Your task to perform on an android device: turn off priority inbox in the gmail app Image 0: 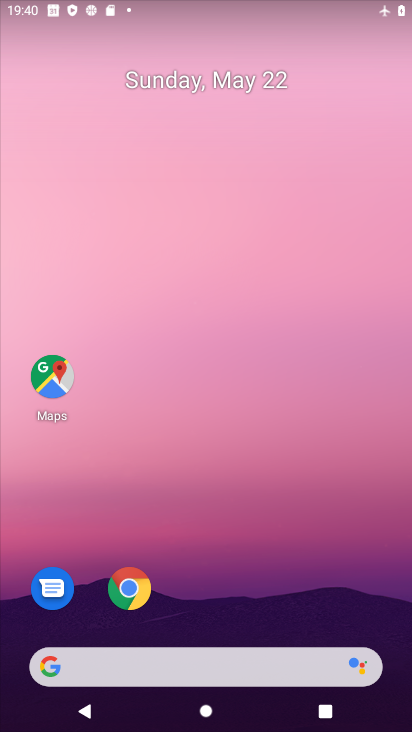
Step 0: click (204, 21)
Your task to perform on an android device: turn off priority inbox in the gmail app Image 1: 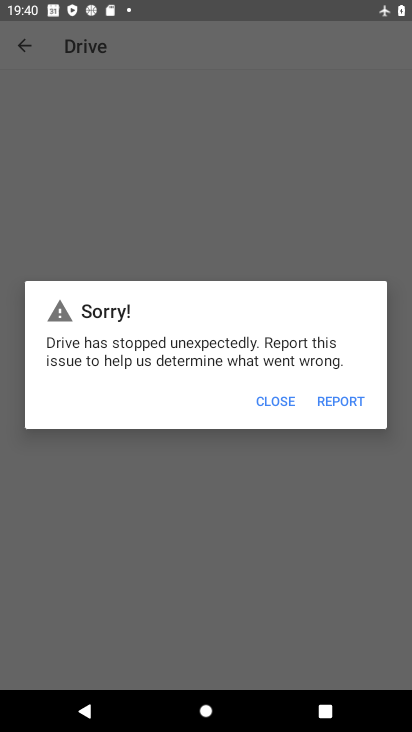
Step 1: press home button
Your task to perform on an android device: turn off priority inbox in the gmail app Image 2: 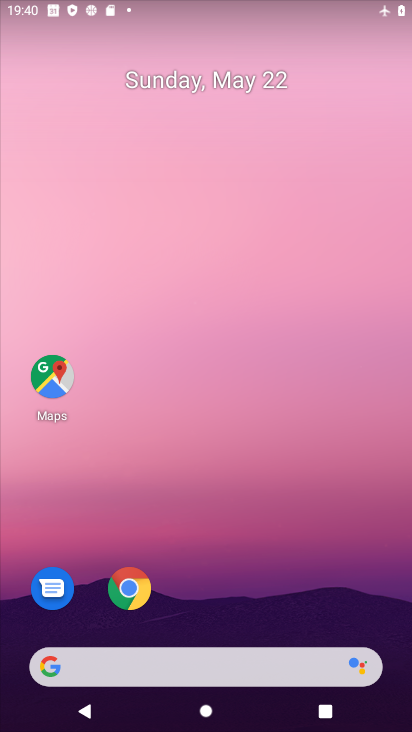
Step 2: drag from (308, 572) to (224, 125)
Your task to perform on an android device: turn off priority inbox in the gmail app Image 3: 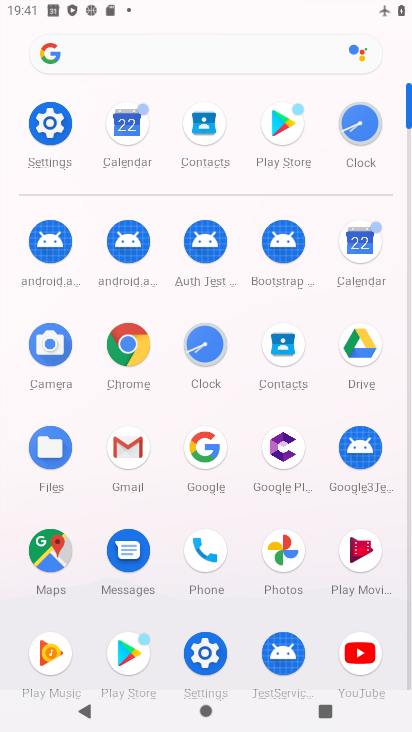
Step 3: click (132, 446)
Your task to perform on an android device: turn off priority inbox in the gmail app Image 4: 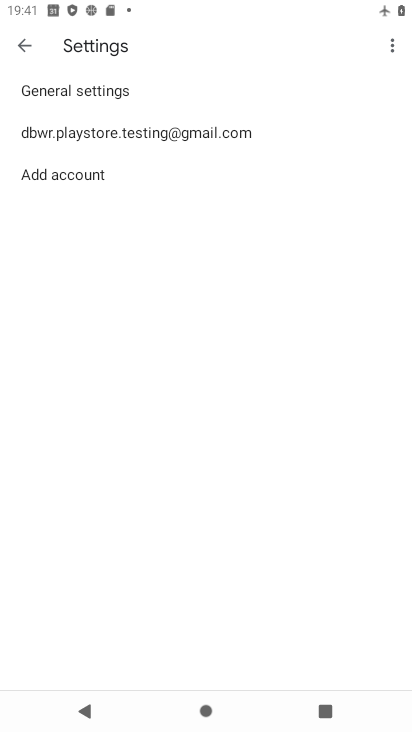
Step 4: click (118, 127)
Your task to perform on an android device: turn off priority inbox in the gmail app Image 5: 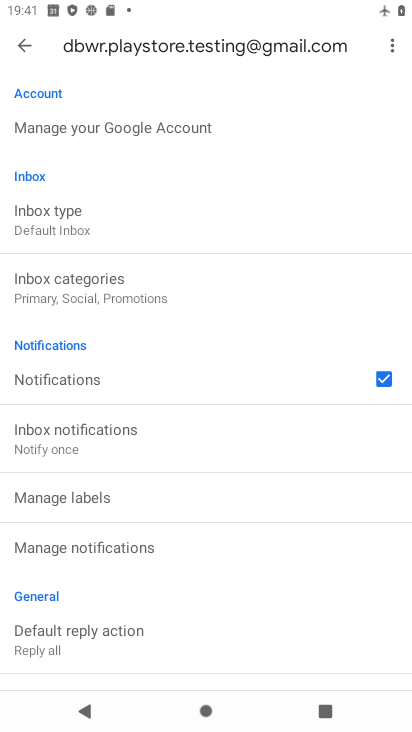
Step 5: click (45, 204)
Your task to perform on an android device: turn off priority inbox in the gmail app Image 6: 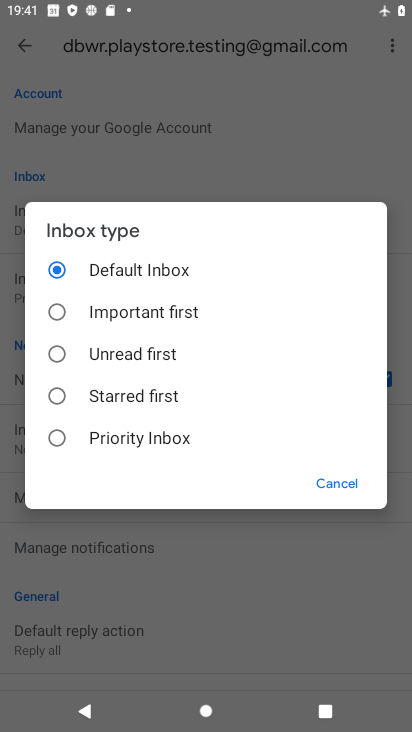
Step 6: task complete